Your task to perform on an android device: allow cookies in the chrome app Image 0: 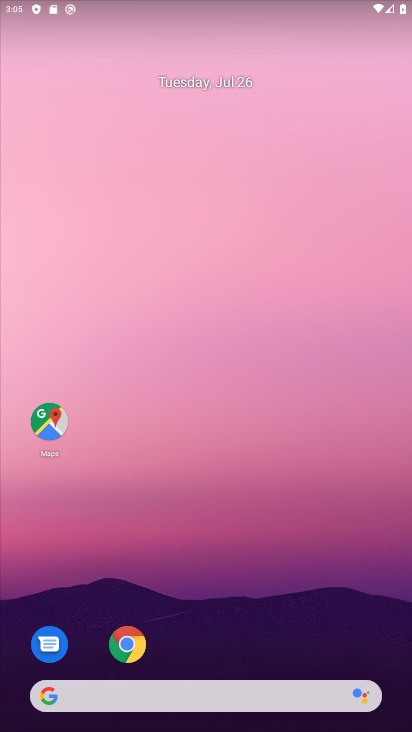
Step 0: drag from (273, 602) to (267, 296)
Your task to perform on an android device: allow cookies in the chrome app Image 1: 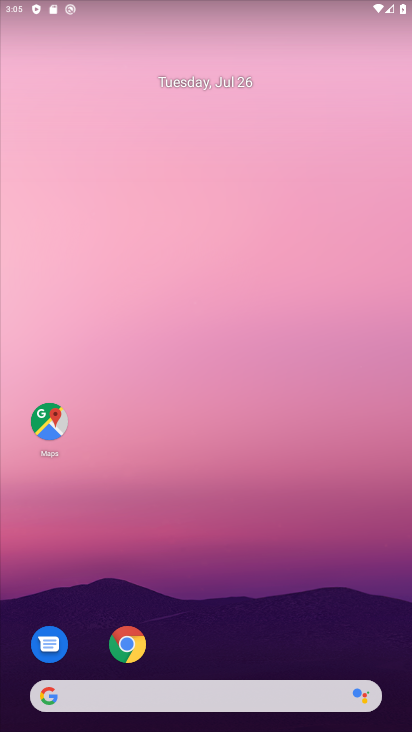
Step 1: drag from (188, 637) to (225, 232)
Your task to perform on an android device: allow cookies in the chrome app Image 2: 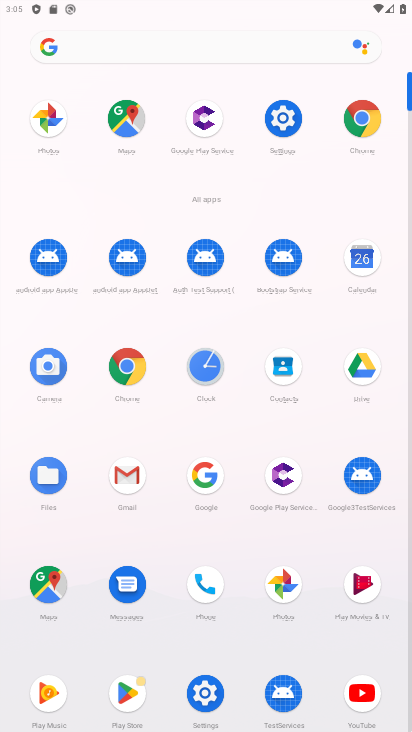
Step 2: click (350, 113)
Your task to perform on an android device: allow cookies in the chrome app Image 3: 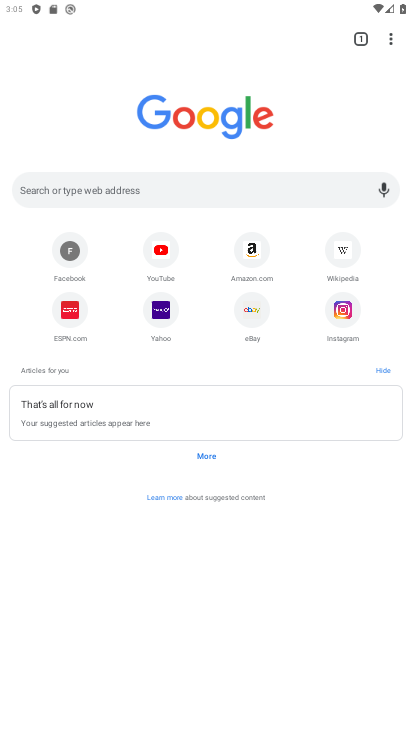
Step 3: click (403, 32)
Your task to perform on an android device: allow cookies in the chrome app Image 4: 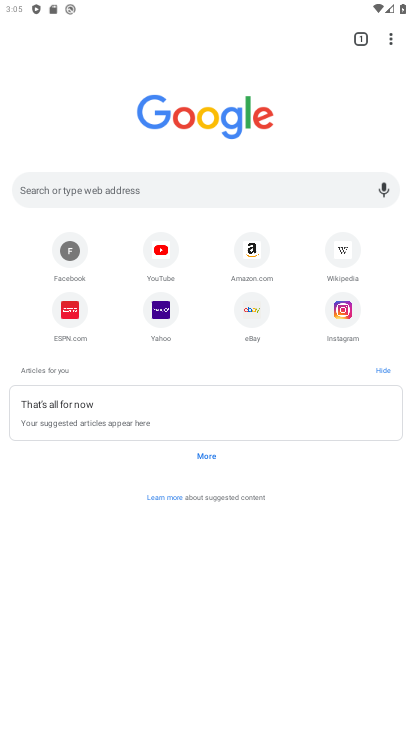
Step 4: click (390, 34)
Your task to perform on an android device: allow cookies in the chrome app Image 5: 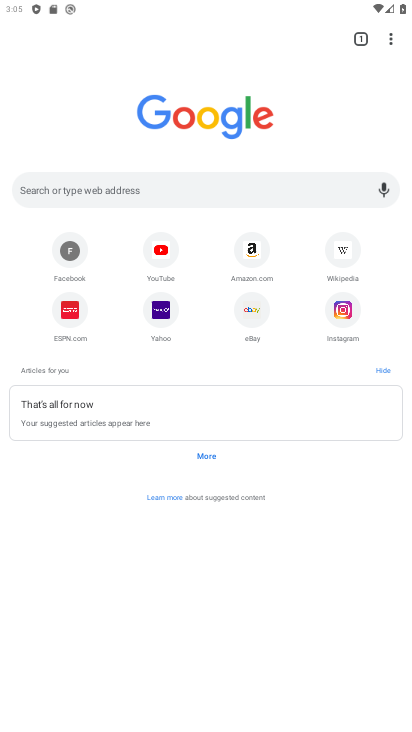
Step 5: click (390, 40)
Your task to perform on an android device: allow cookies in the chrome app Image 6: 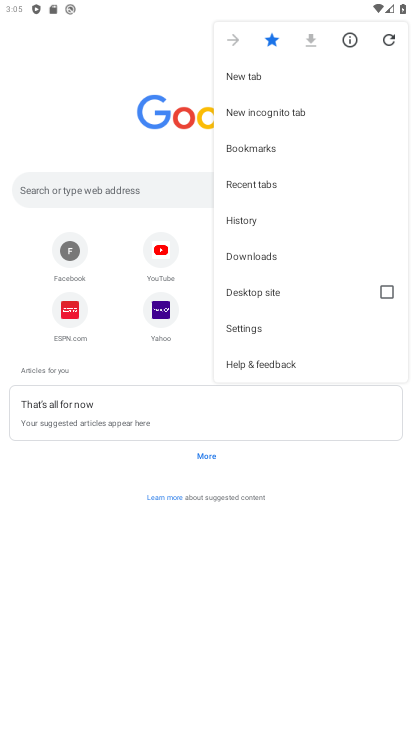
Step 6: click (258, 323)
Your task to perform on an android device: allow cookies in the chrome app Image 7: 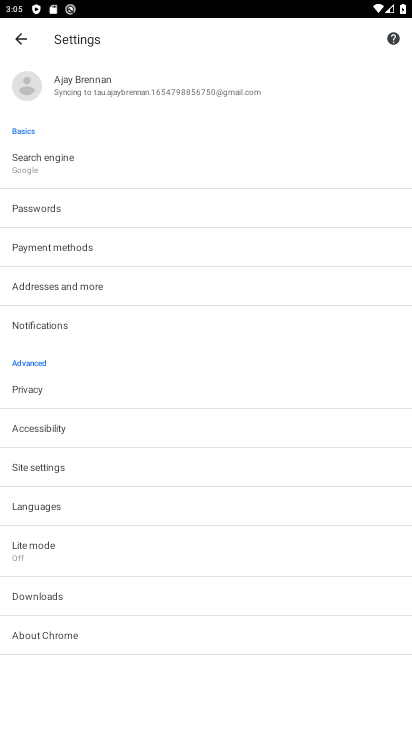
Step 7: click (90, 385)
Your task to perform on an android device: allow cookies in the chrome app Image 8: 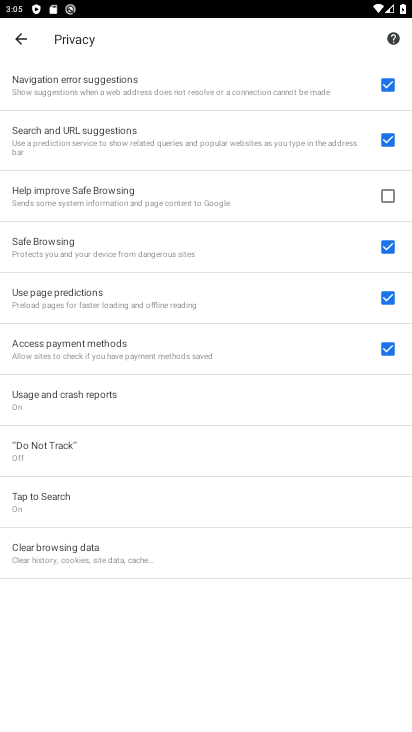
Step 8: click (26, 38)
Your task to perform on an android device: allow cookies in the chrome app Image 9: 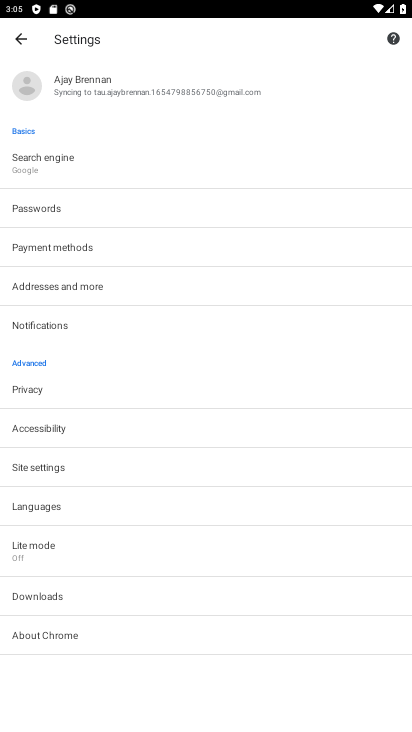
Step 9: click (16, 36)
Your task to perform on an android device: allow cookies in the chrome app Image 10: 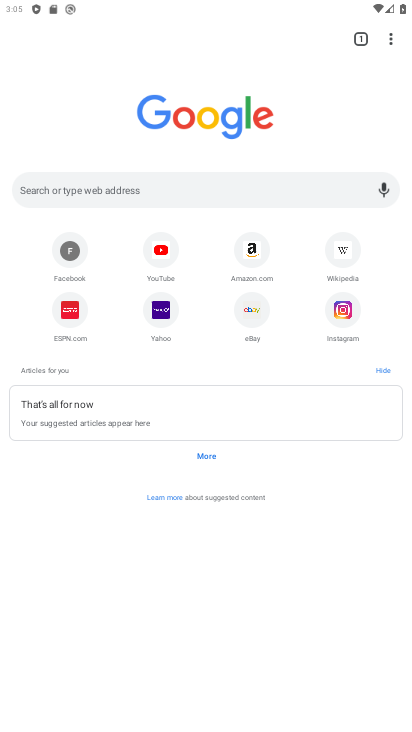
Step 10: click (393, 30)
Your task to perform on an android device: allow cookies in the chrome app Image 11: 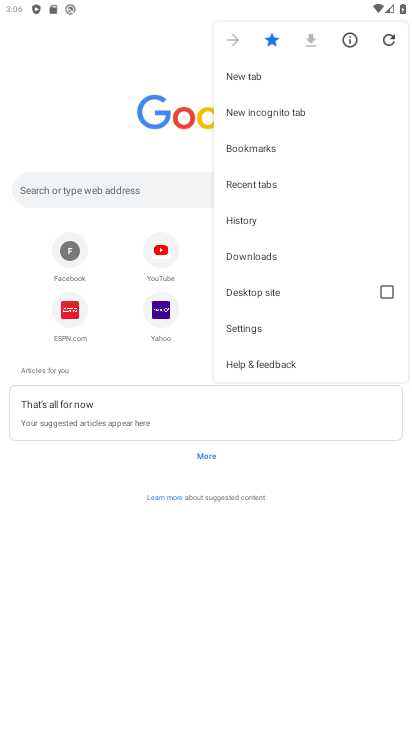
Step 11: click (250, 324)
Your task to perform on an android device: allow cookies in the chrome app Image 12: 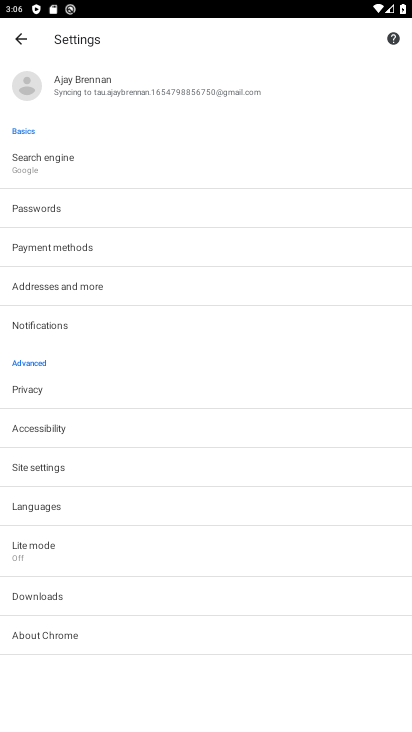
Step 12: click (118, 466)
Your task to perform on an android device: allow cookies in the chrome app Image 13: 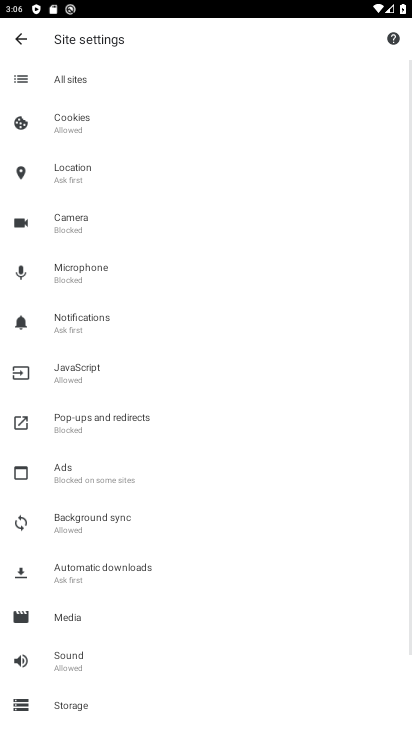
Step 13: click (69, 121)
Your task to perform on an android device: allow cookies in the chrome app Image 14: 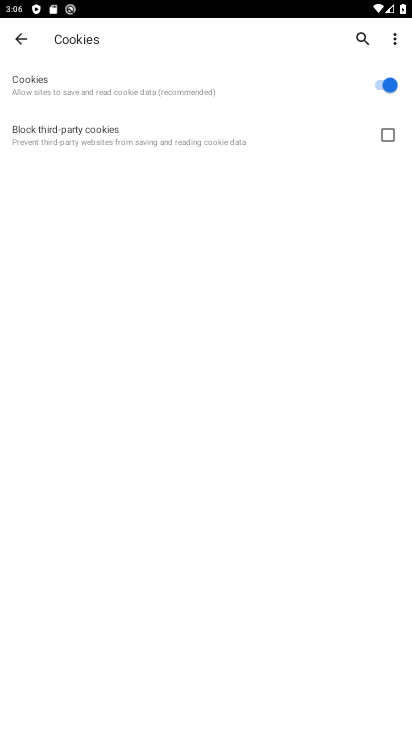
Step 14: task complete